Your task to perform on an android device: find photos in the google photos app Image 0: 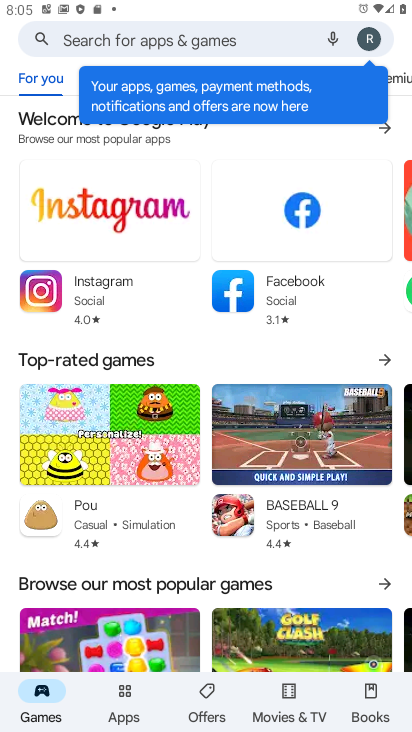
Step 0: press home button
Your task to perform on an android device: find photos in the google photos app Image 1: 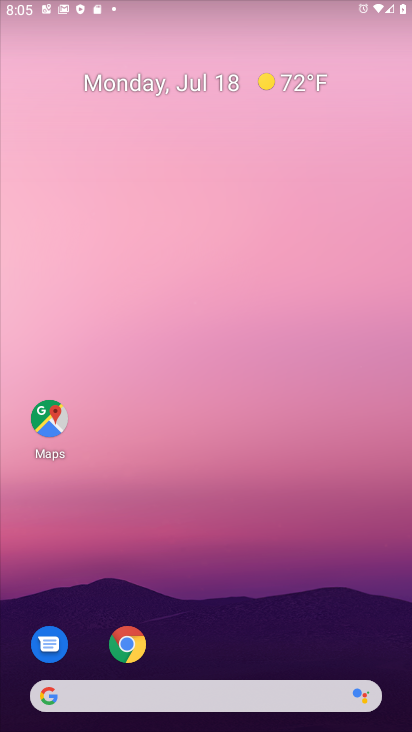
Step 1: drag from (376, 651) to (239, 27)
Your task to perform on an android device: find photos in the google photos app Image 2: 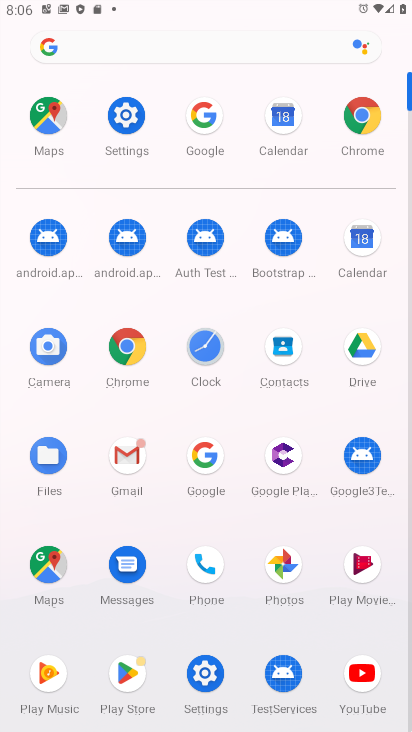
Step 2: click (284, 569)
Your task to perform on an android device: find photos in the google photos app Image 3: 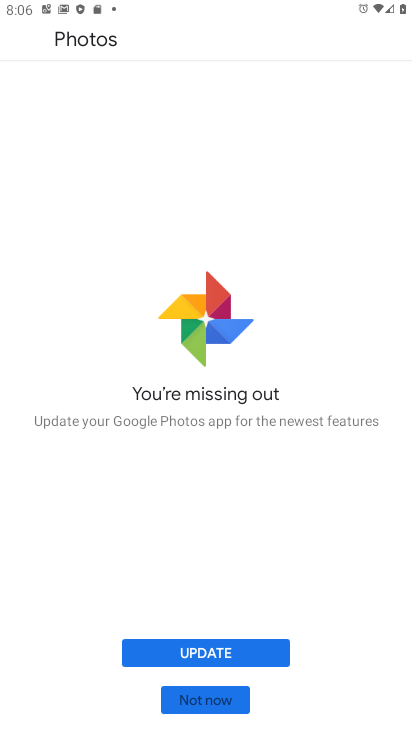
Step 3: click (206, 659)
Your task to perform on an android device: find photos in the google photos app Image 4: 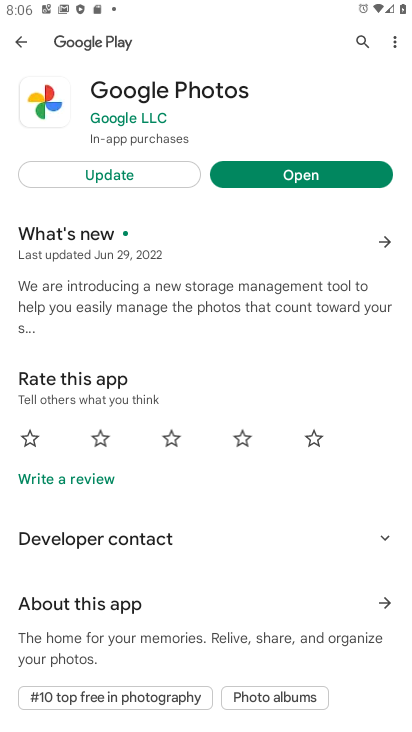
Step 4: click (127, 163)
Your task to perform on an android device: find photos in the google photos app Image 5: 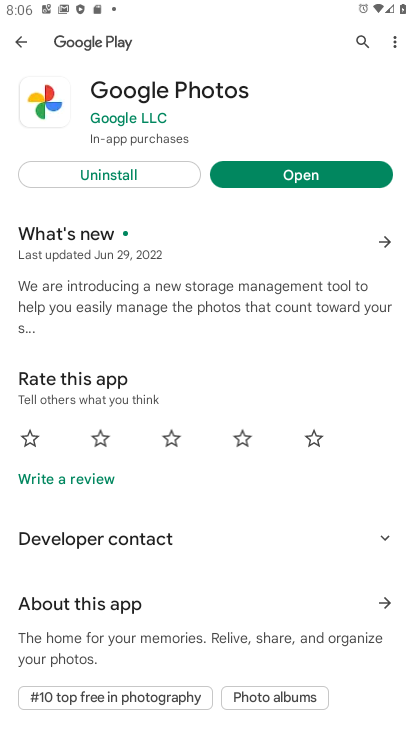
Step 5: click (317, 179)
Your task to perform on an android device: find photos in the google photos app Image 6: 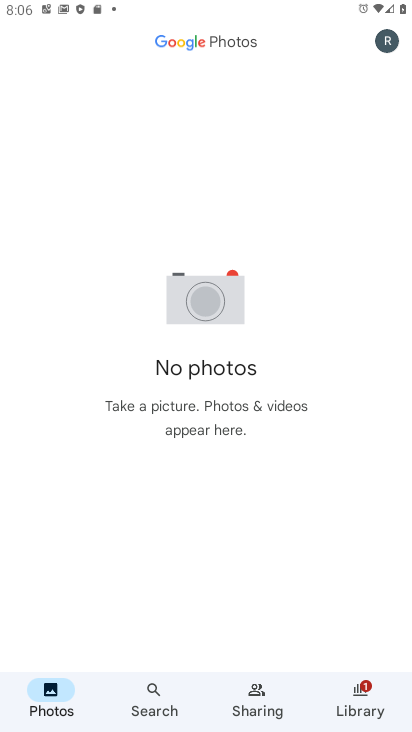
Step 6: task complete